Your task to perform on an android device: Go to Android settings Image 0: 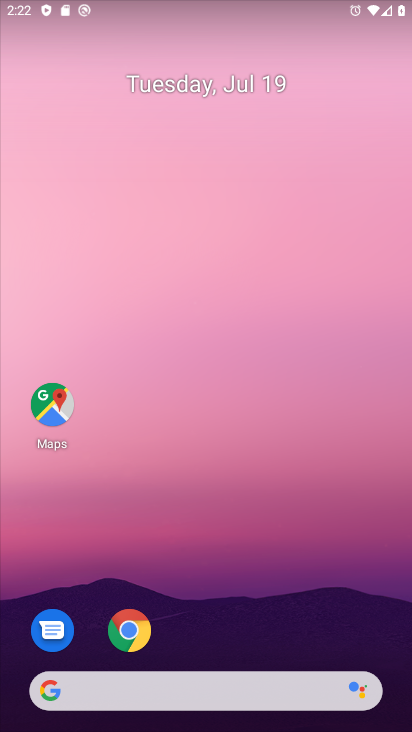
Step 0: drag from (215, 575) to (276, 8)
Your task to perform on an android device: Go to Android settings Image 1: 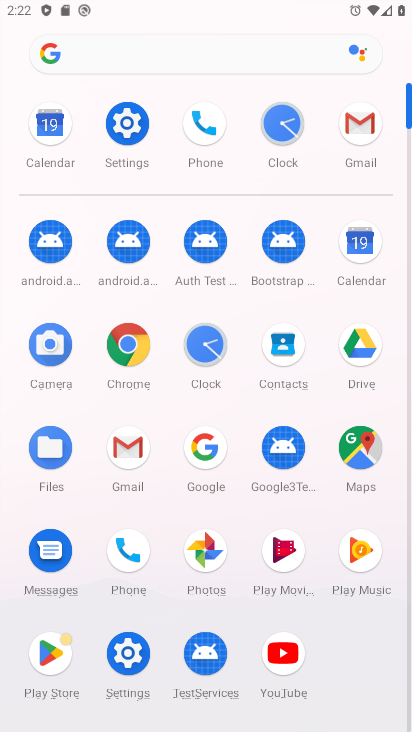
Step 1: click (130, 124)
Your task to perform on an android device: Go to Android settings Image 2: 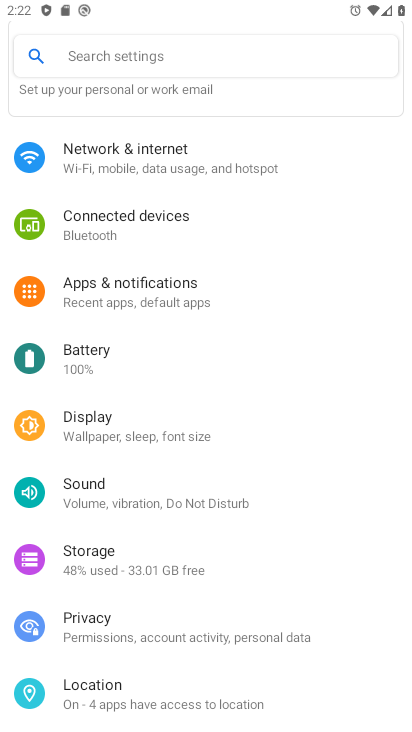
Step 2: drag from (180, 665) to (221, 28)
Your task to perform on an android device: Go to Android settings Image 3: 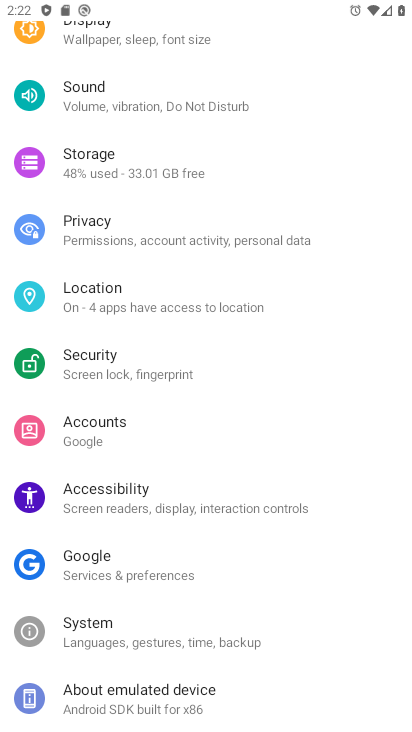
Step 3: click (193, 707)
Your task to perform on an android device: Go to Android settings Image 4: 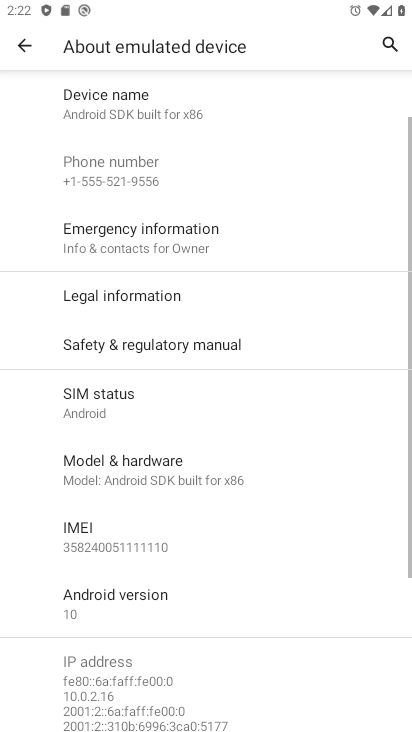
Step 4: task complete